Your task to perform on an android device: Open the calendar app, open the side menu, and click the "Day" option Image 0: 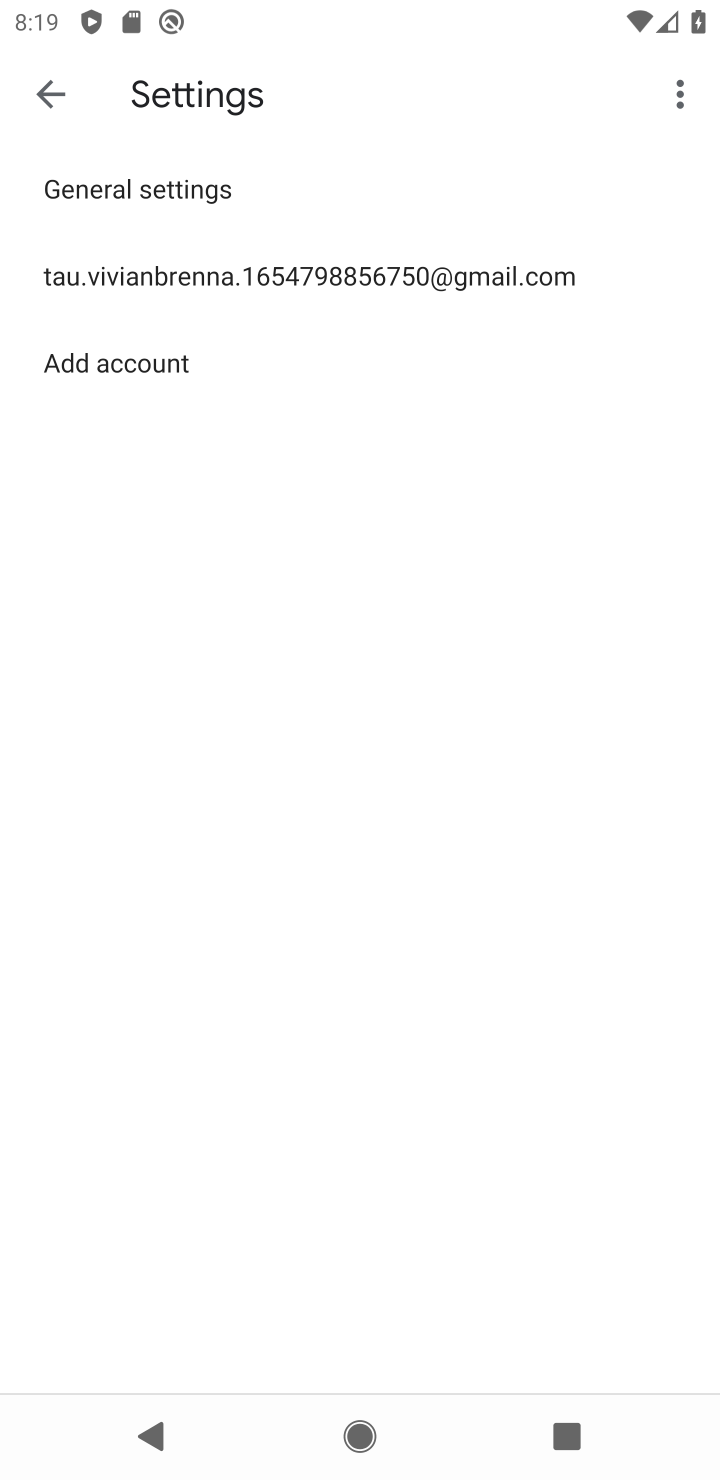
Step 0: press home button
Your task to perform on an android device: Open the calendar app, open the side menu, and click the "Day" option Image 1: 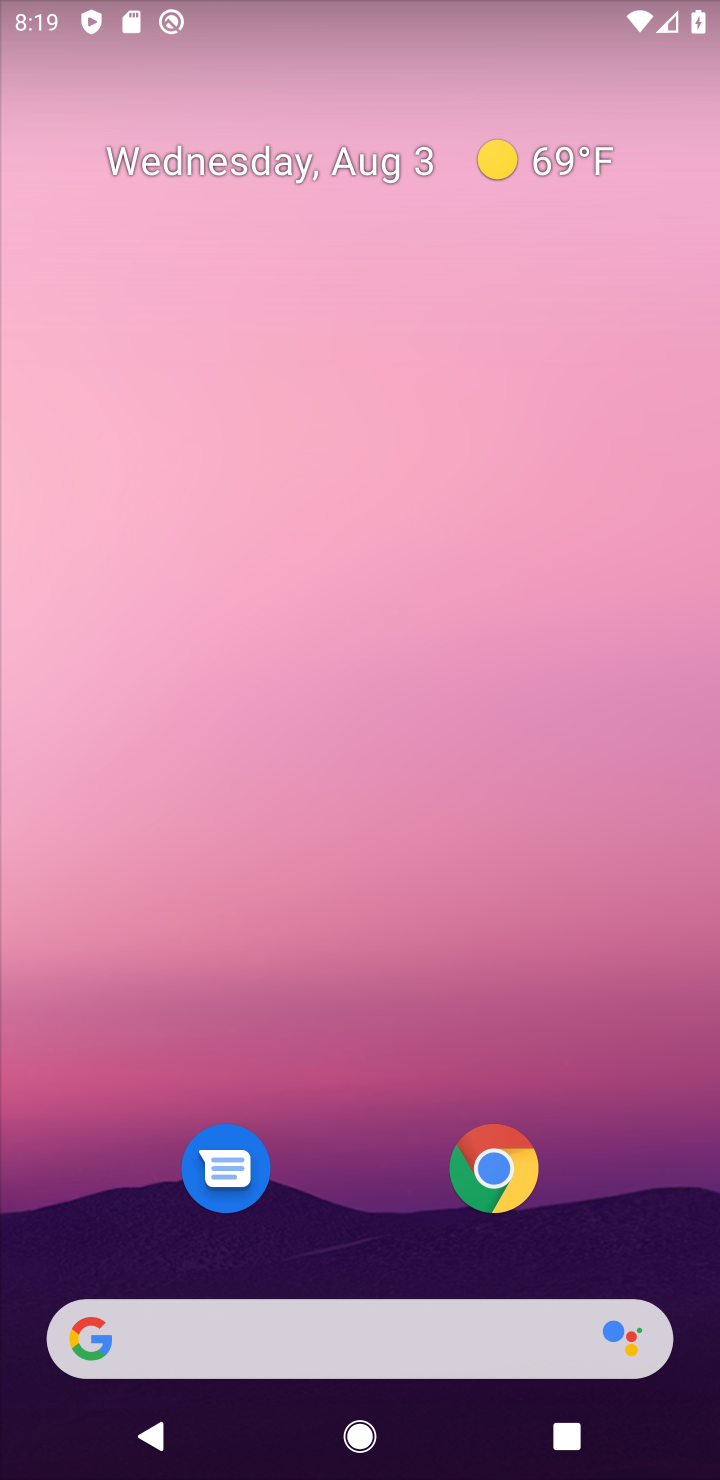
Step 1: drag from (291, 1135) to (236, 28)
Your task to perform on an android device: Open the calendar app, open the side menu, and click the "Day" option Image 2: 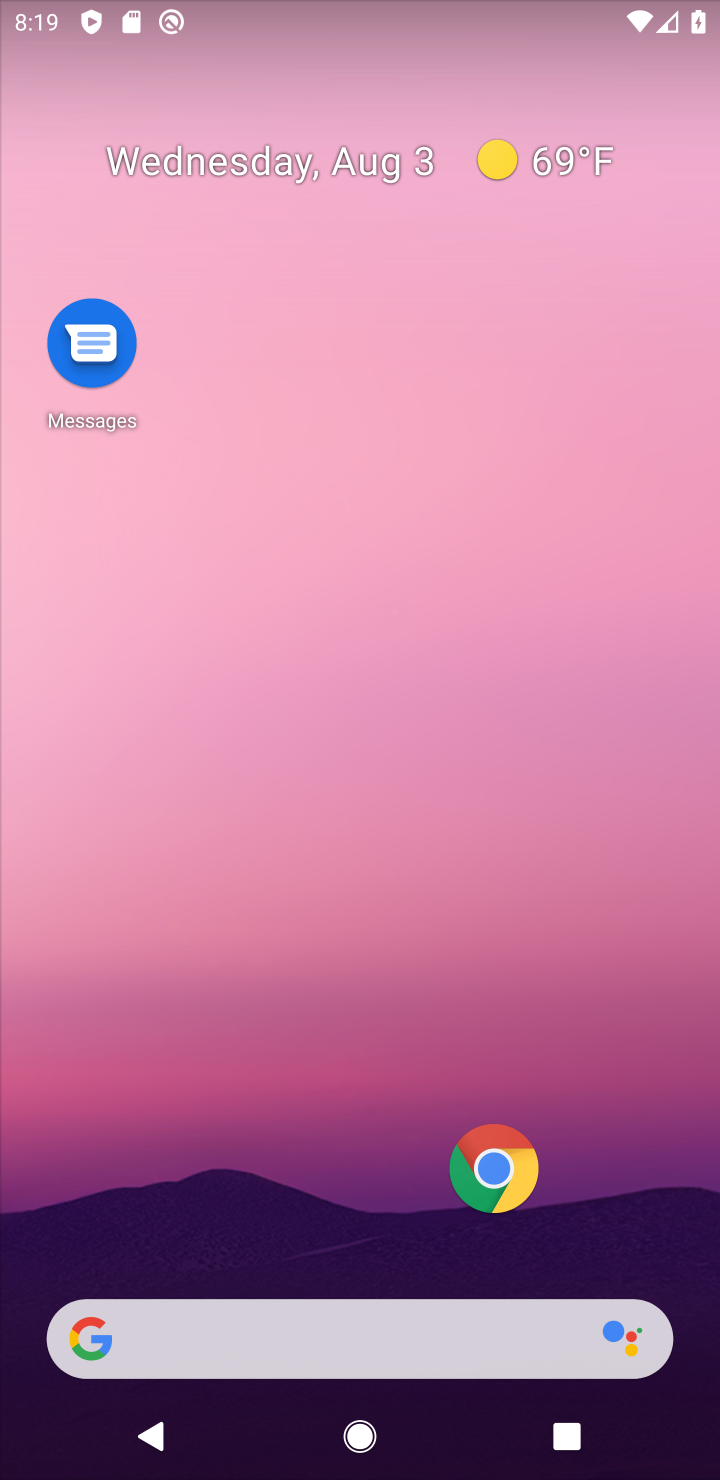
Step 2: click (323, 933)
Your task to perform on an android device: Open the calendar app, open the side menu, and click the "Day" option Image 3: 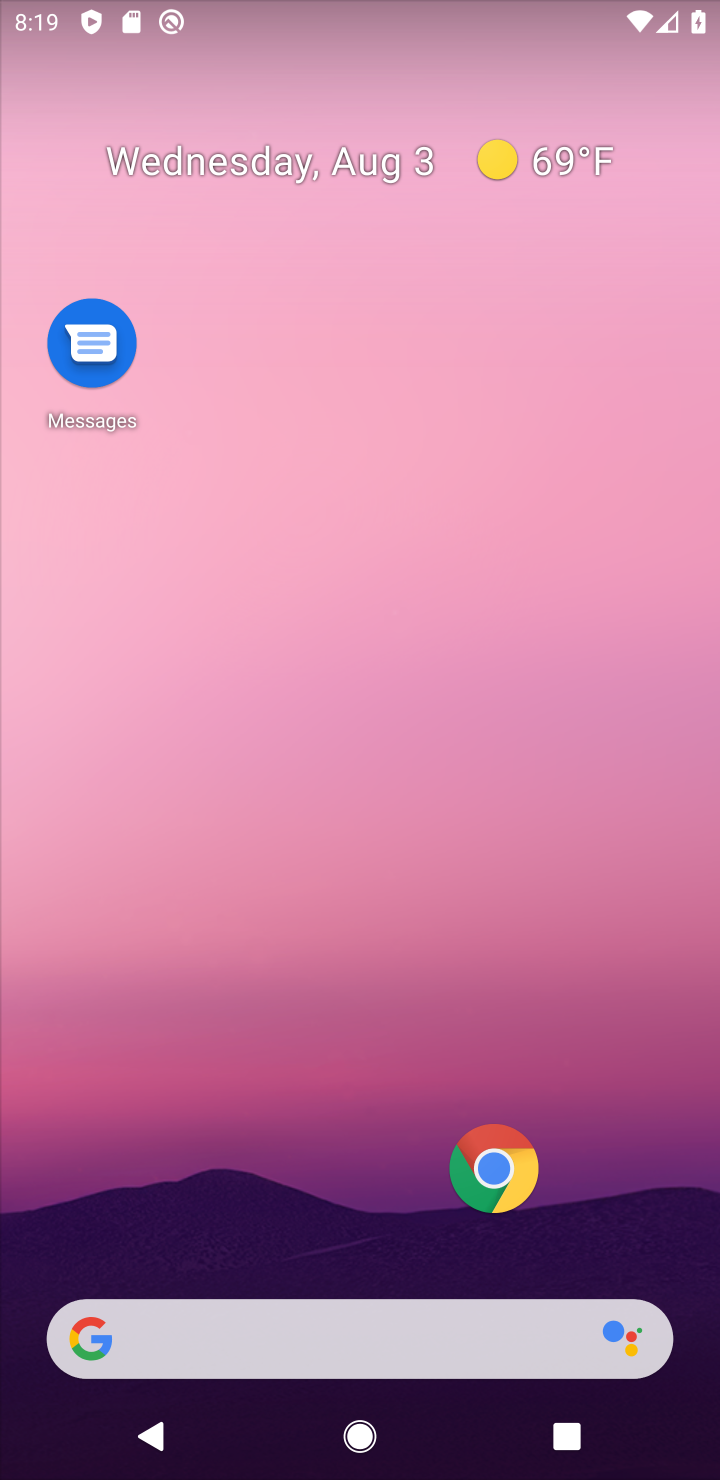
Step 3: drag from (372, 1290) to (425, 81)
Your task to perform on an android device: Open the calendar app, open the side menu, and click the "Day" option Image 4: 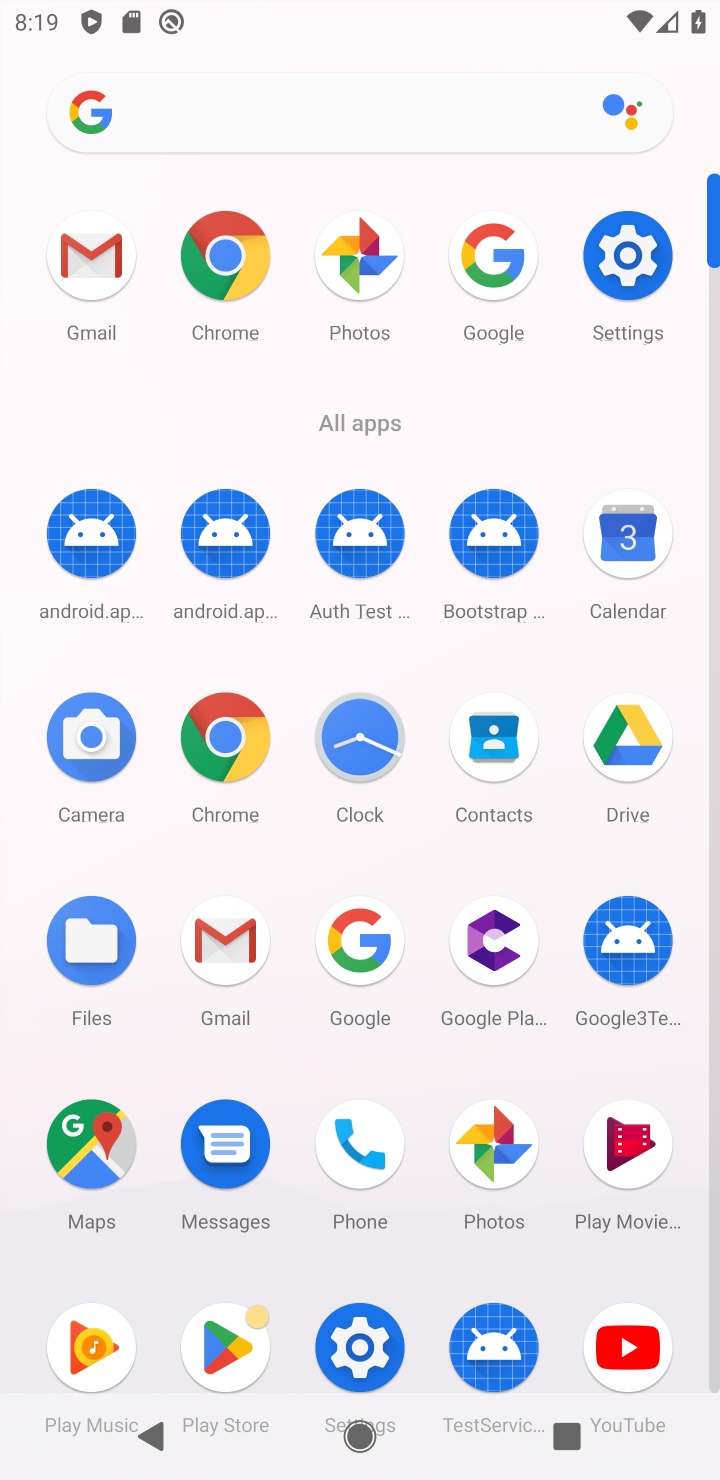
Step 4: click (618, 545)
Your task to perform on an android device: Open the calendar app, open the side menu, and click the "Day" option Image 5: 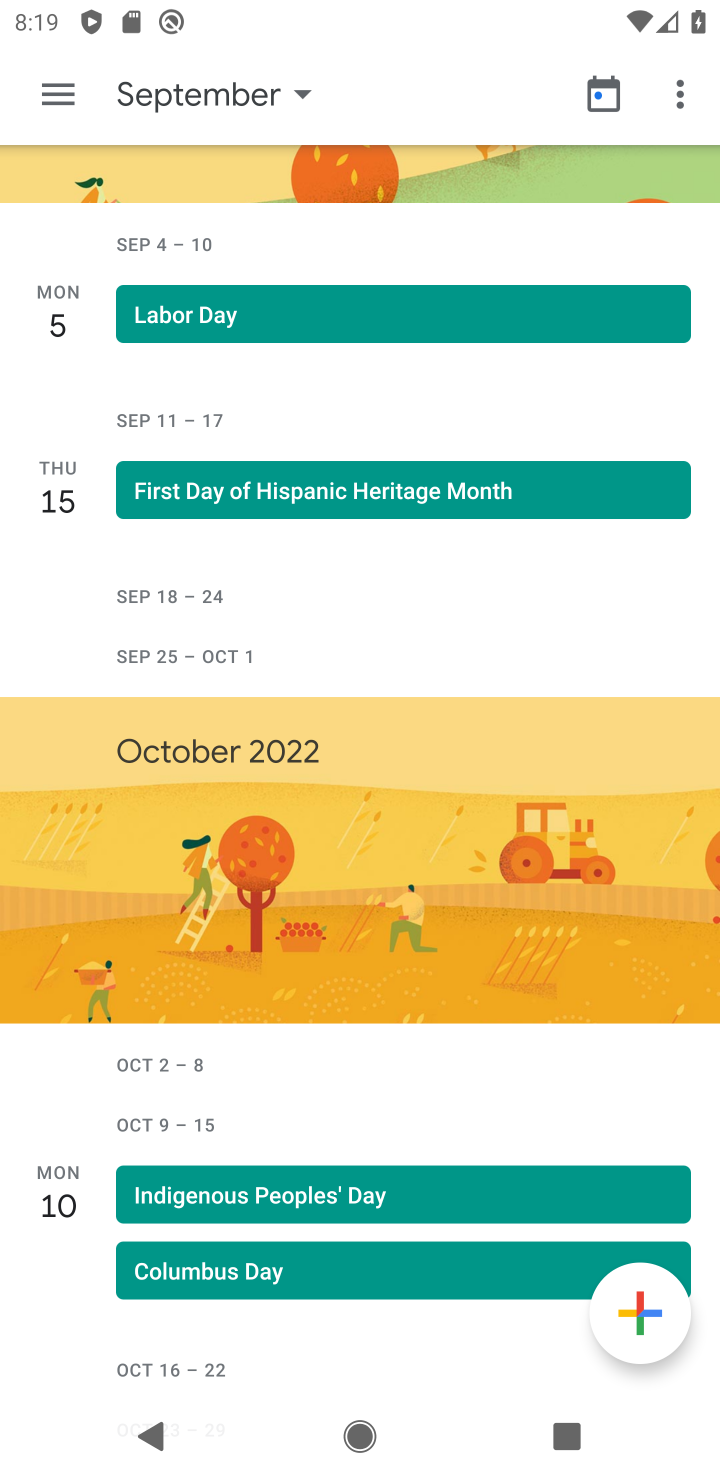
Step 5: click (47, 74)
Your task to perform on an android device: Open the calendar app, open the side menu, and click the "Day" option Image 6: 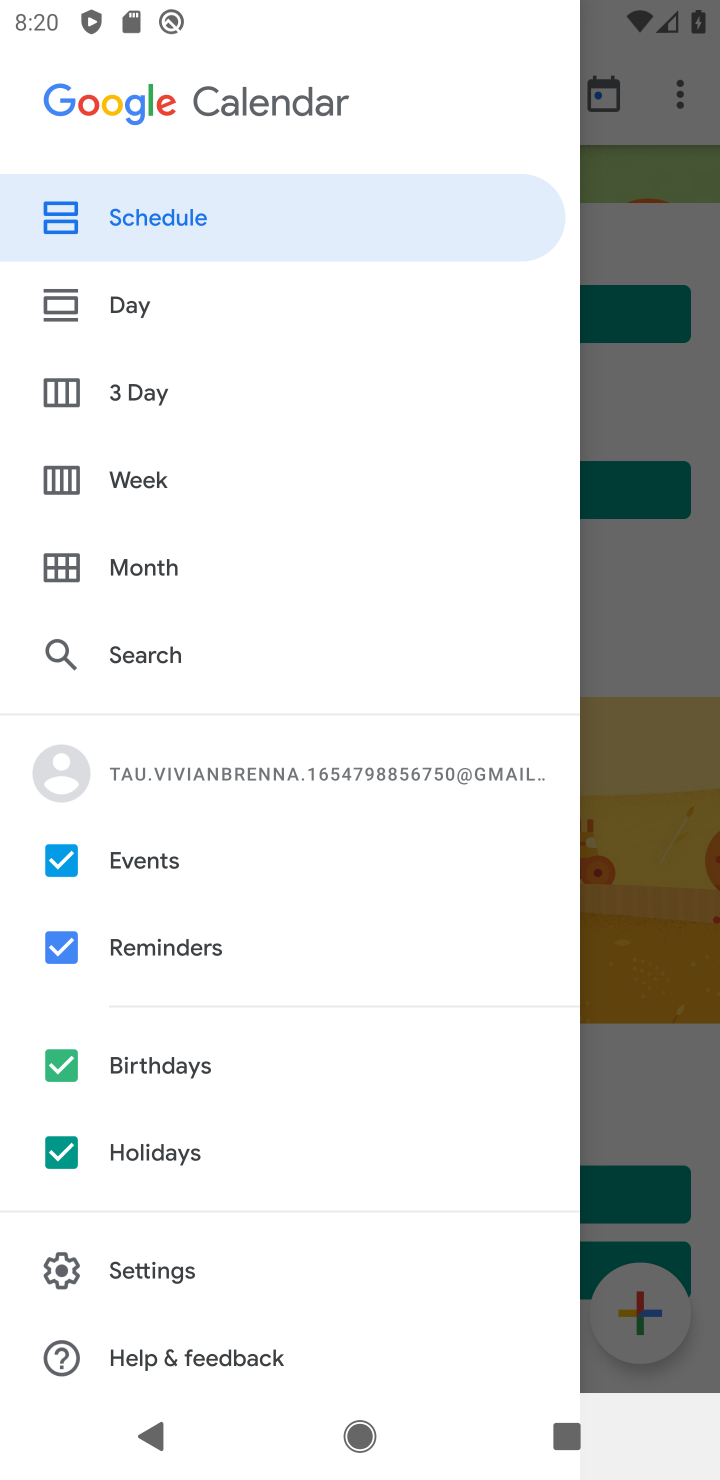
Step 6: click (117, 299)
Your task to perform on an android device: Open the calendar app, open the side menu, and click the "Day" option Image 7: 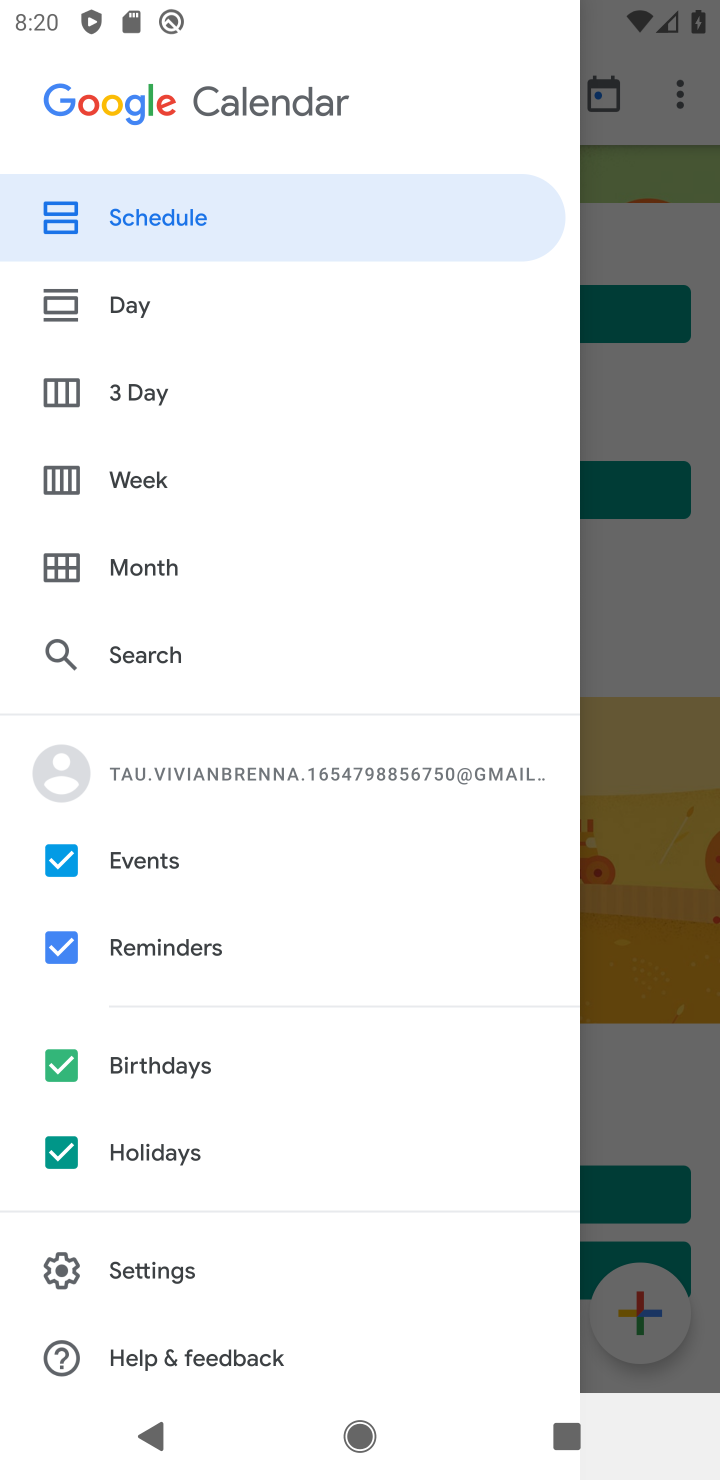
Step 7: click (98, 313)
Your task to perform on an android device: Open the calendar app, open the side menu, and click the "Day" option Image 8: 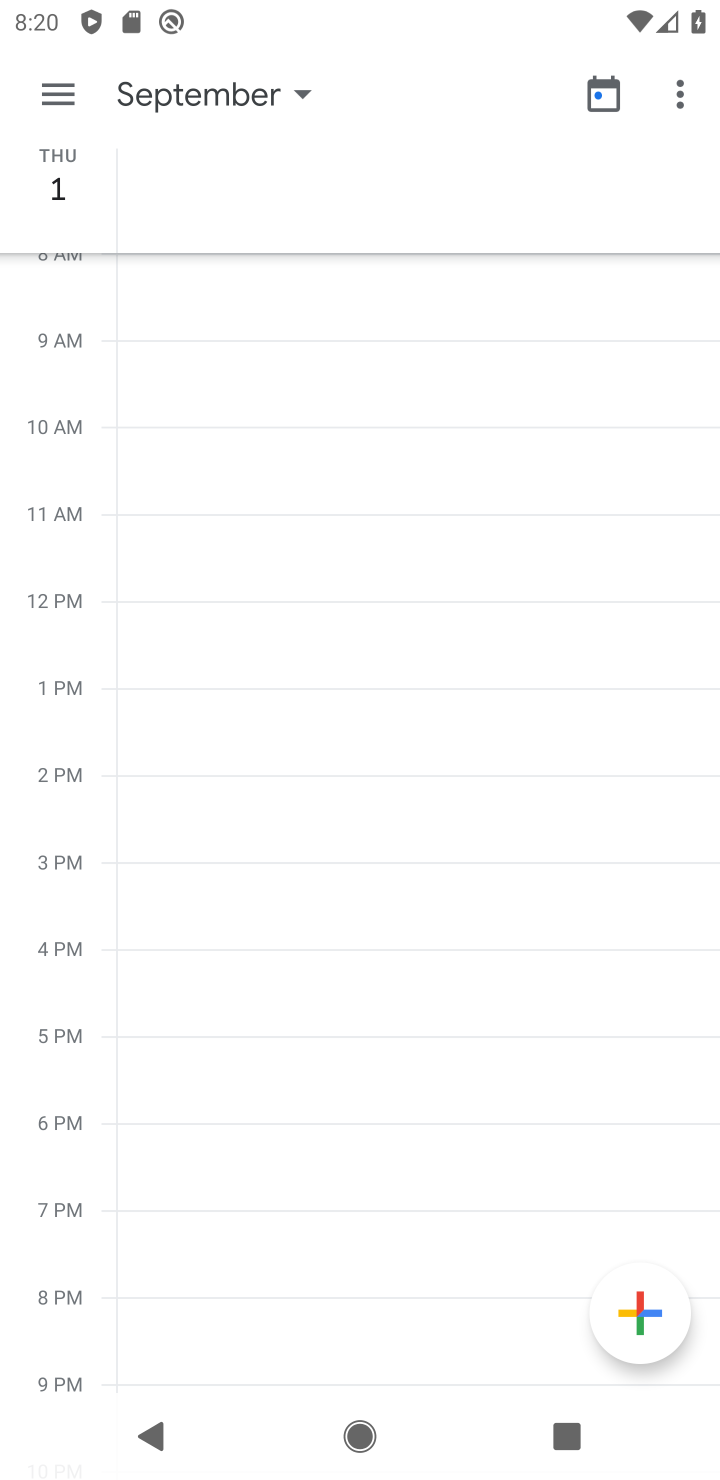
Step 8: task complete